Your task to perform on an android device: change the clock display to show seconds Image 0: 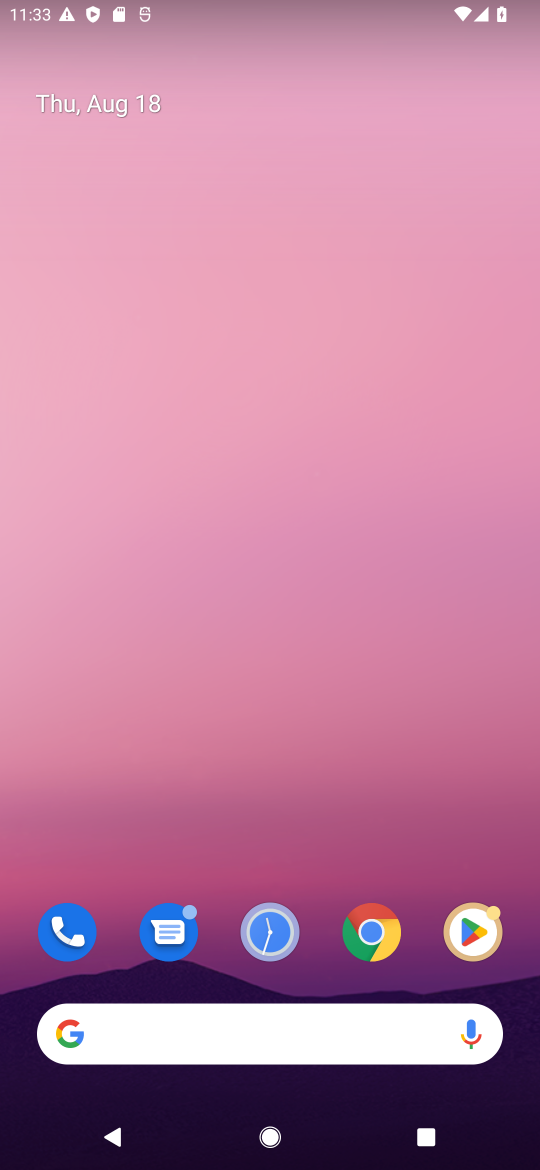
Step 0: click (265, 930)
Your task to perform on an android device: change the clock display to show seconds Image 1: 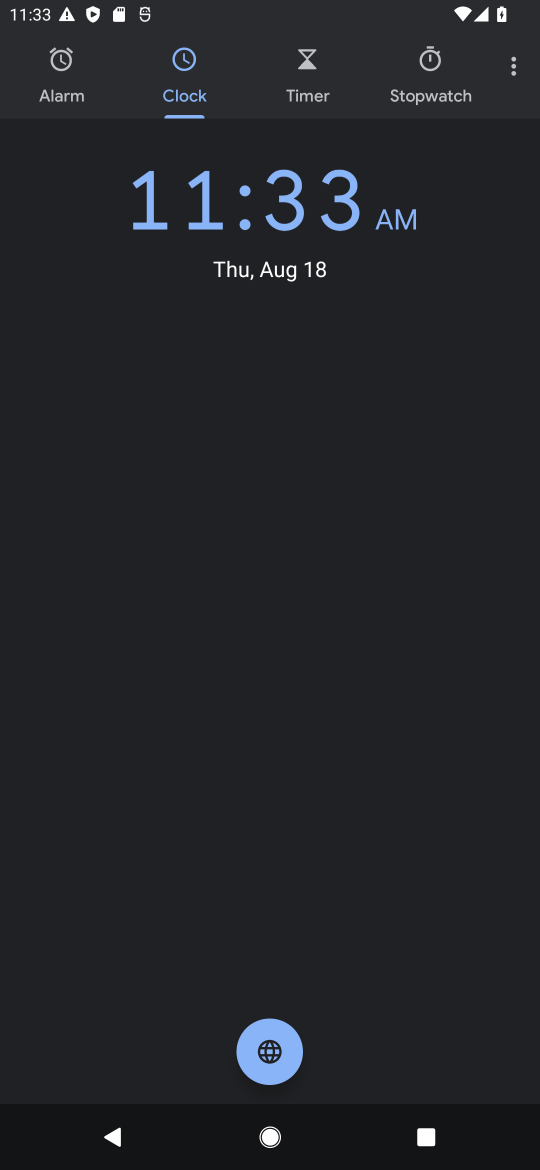
Step 1: click (514, 65)
Your task to perform on an android device: change the clock display to show seconds Image 2: 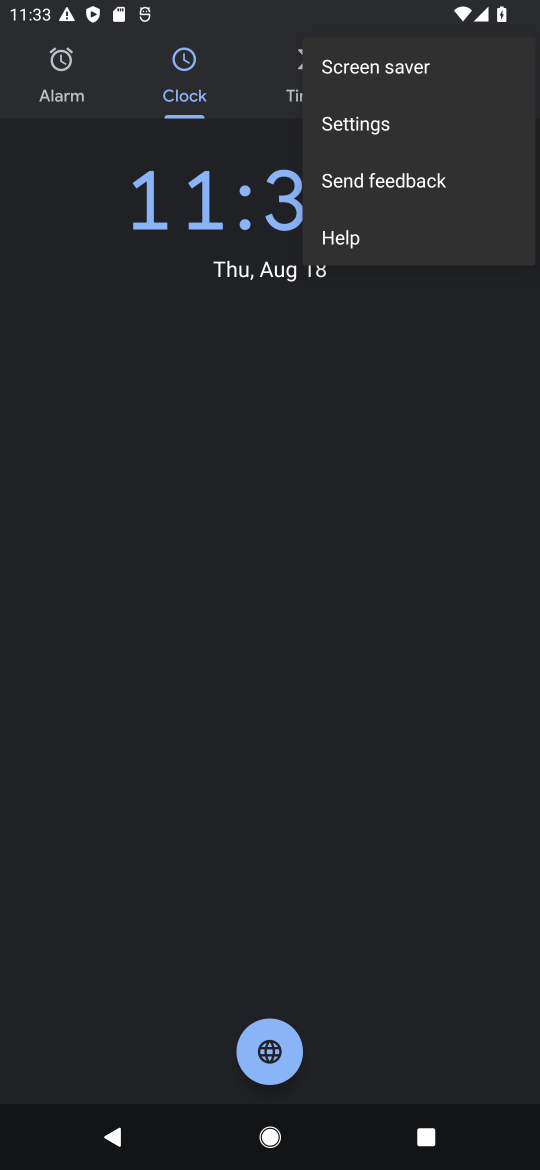
Step 2: click (380, 126)
Your task to perform on an android device: change the clock display to show seconds Image 3: 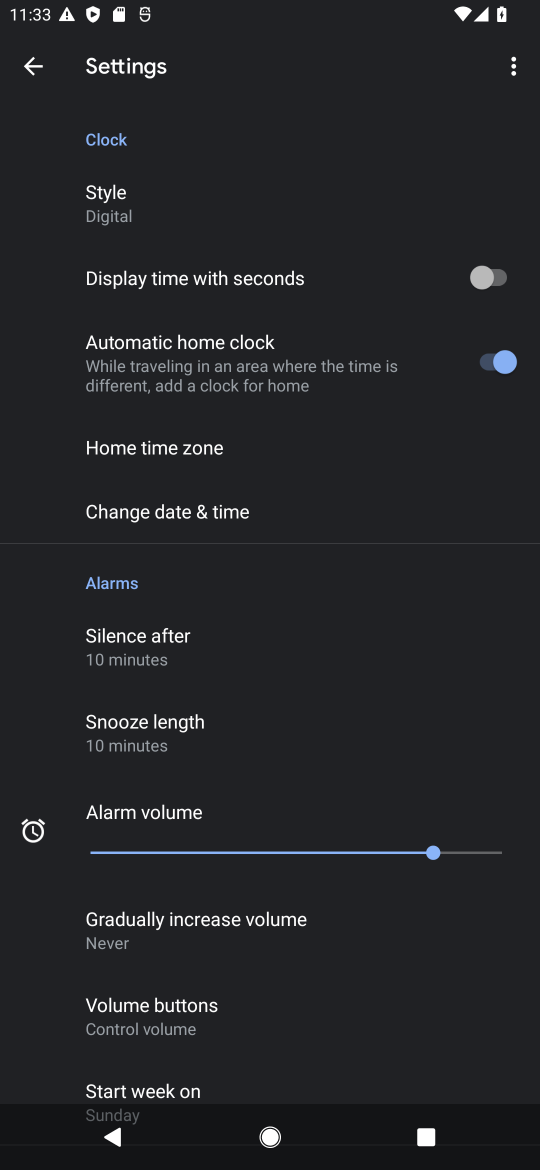
Step 3: click (486, 273)
Your task to perform on an android device: change the clock display to show seconds Image 4: 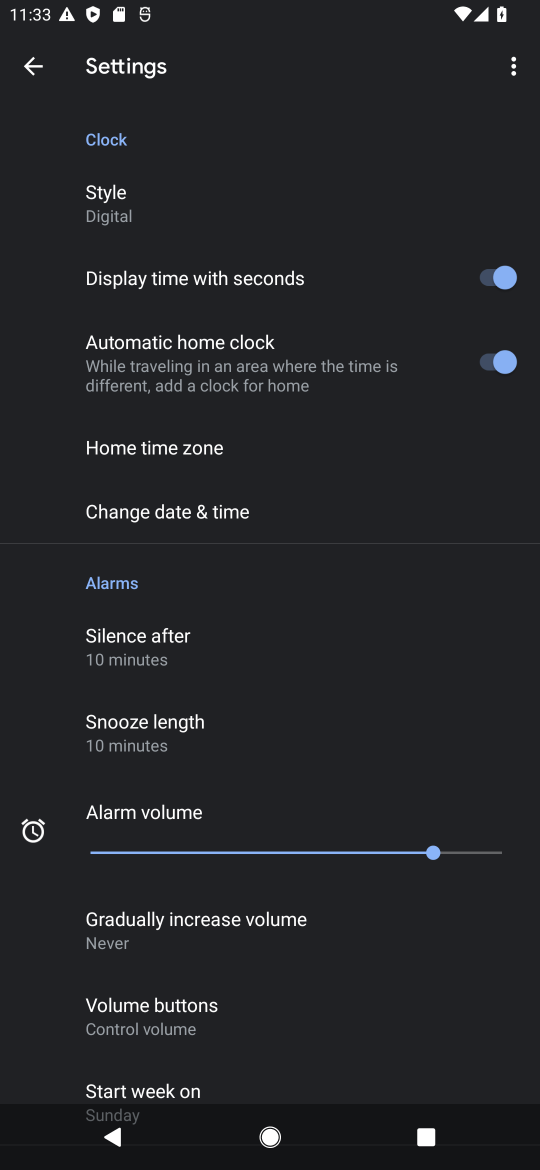
Step 4: task complete